Your task to perform on an android device: Search for nike dri-fit shirts on Nike Image 0: 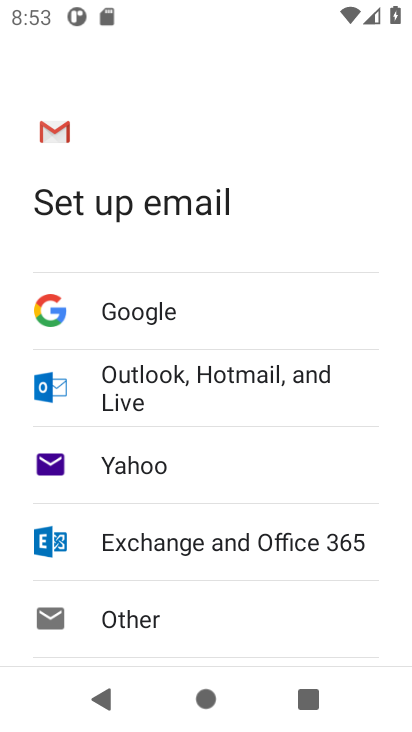
Step 0: press home button
Your task to perform on an android device: Search for nike dri-fit shirts on Nike Image 1: 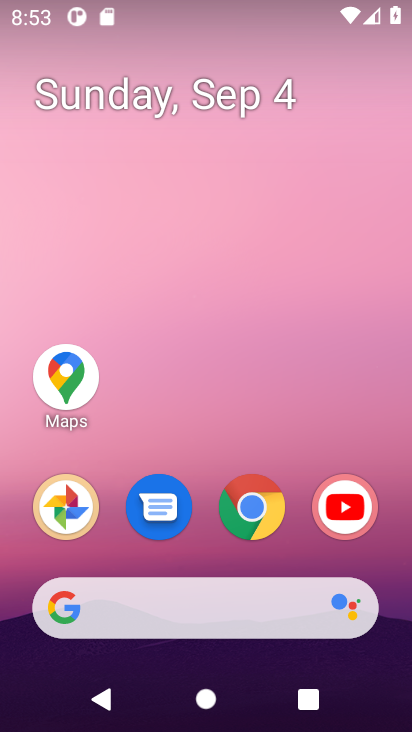
Step 1: click (252, 513)
Your task to perform on an android device: Search for nike dri-fit shirts on Nike Image 2: 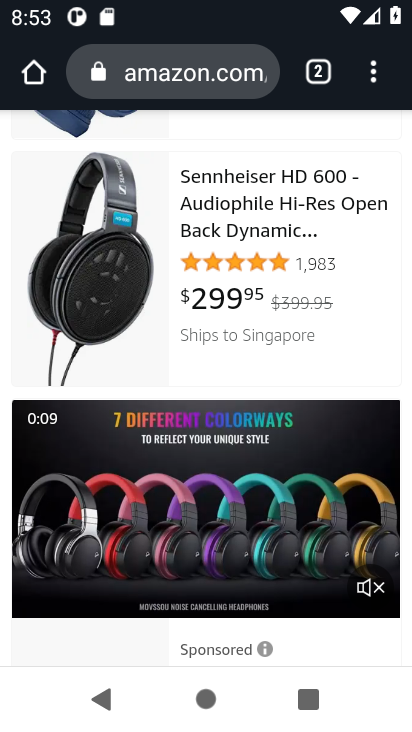
Step 2: click (145, 56)
Your task to perform on an android device: Search for nike dri-fit shirts on Nike Image 3: 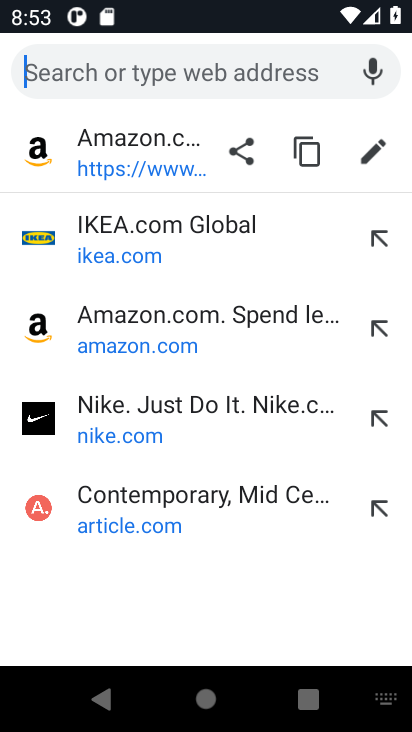
Step 3: type "Nike"
Your task to perform on an android device: Search for nike dri-fit shirts on Nike Image 4: 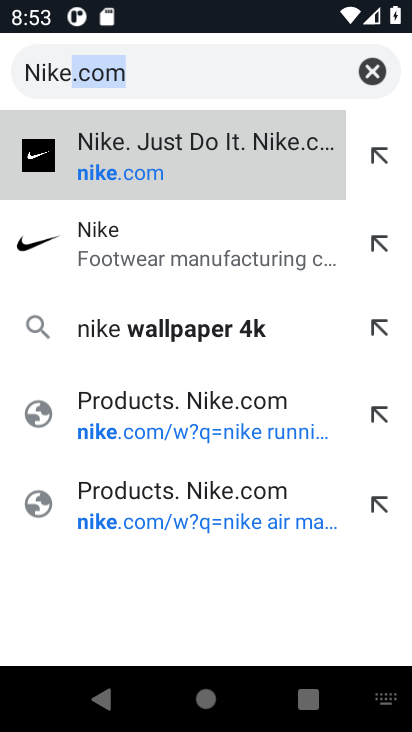
Step 4: click (97, 151)
Your task to perform on an android device: Search for nike dri-fit shirts on Nike Image 5: 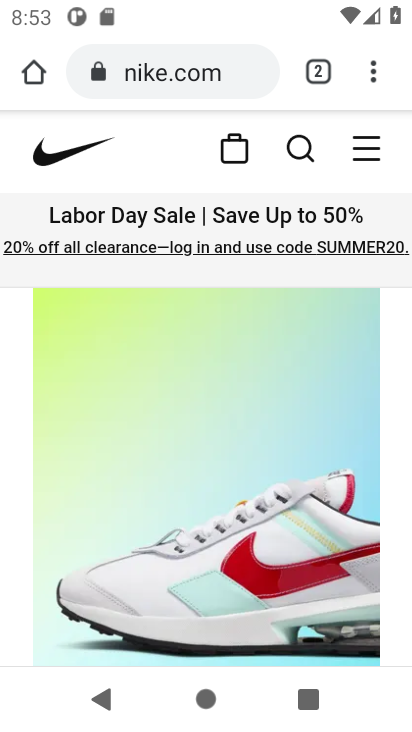
Step 5: click (292, 150)
Your task to perform on an android device: Search for nike dri-fit shirts on Nike Image 6: 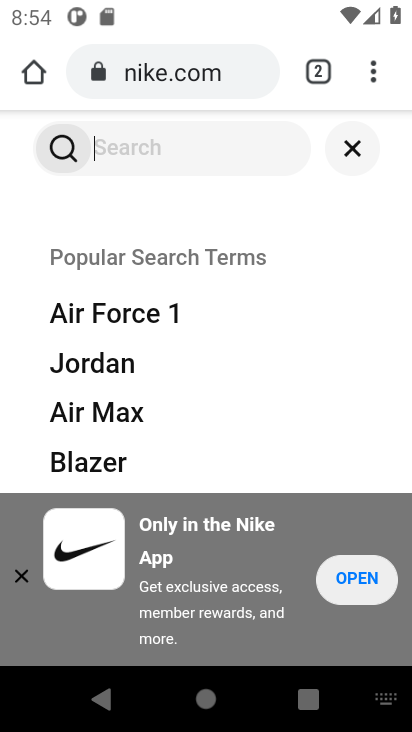
Step 6: click (19, 571)
Your task to perform on an android device: Search for nike dri-fit shirts on Nike Image 7: 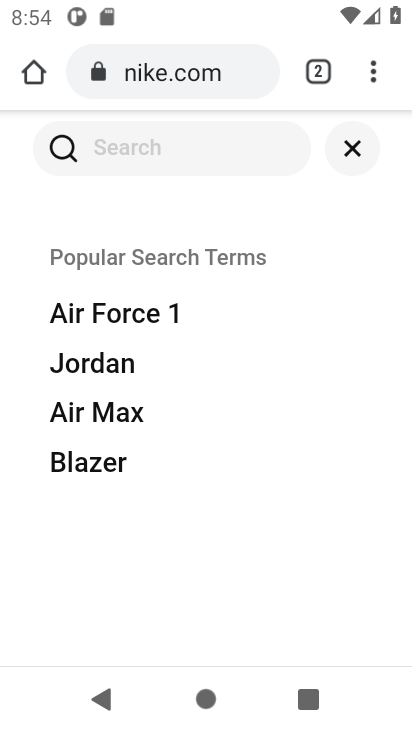
Step 7: click (63, 149)
Your task to perform on an android device: Search for nike dri-fit shirts on Nike Image 8: 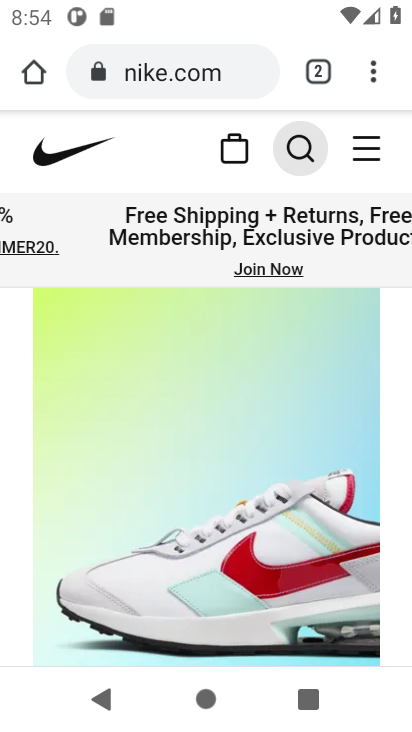
Step 8: click (300, 150)
Your task to perform on an android device: Search for nike dri-fit shirts on Nike Image 9: 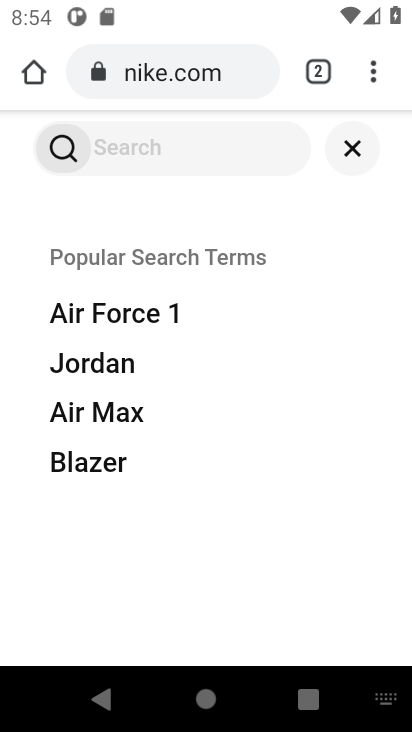
Step 9: type " nike dri-fit shirts"
Your task to perform on an android device: Search for nike dri-fit shirts on Nike Image 10: 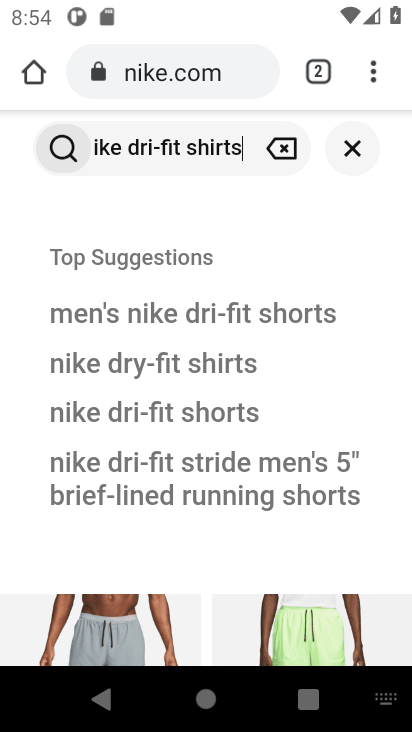
Step 10: click (111, 354)
Your task to perform on an android device: Search for nike dri-fit shirts on Nike Image 11: 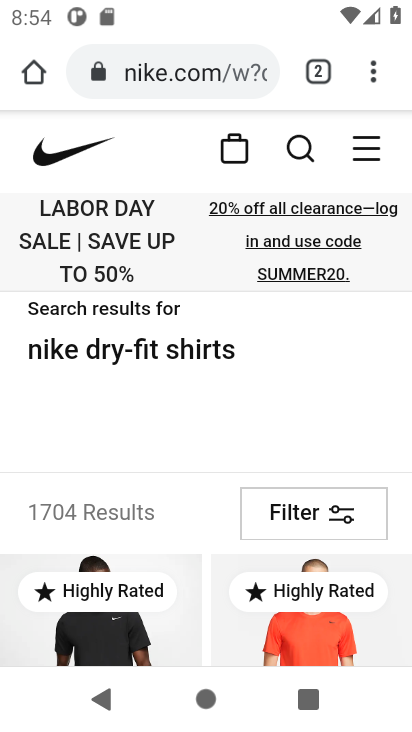
Step 11: drag from (206, 553) to (199, 173)
Your task to perform on an android device: Search for nike dri-fit shirts on Nike Image 12: 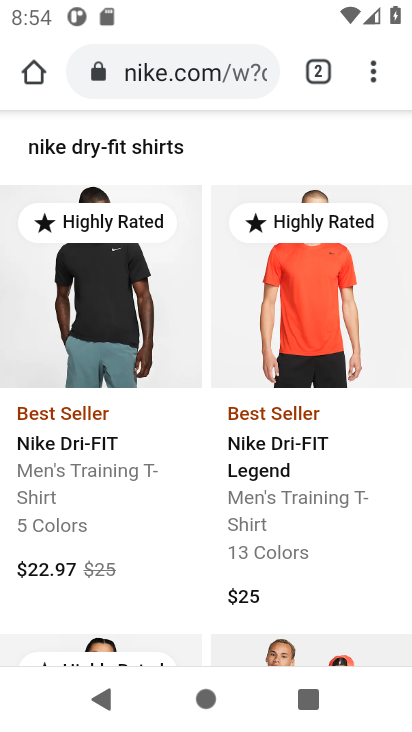
Step 12: drag from (202, 539) to (202, 264)
Your task to perform on an android device: Search for nike dri-fit shirts on Nike Image 13: 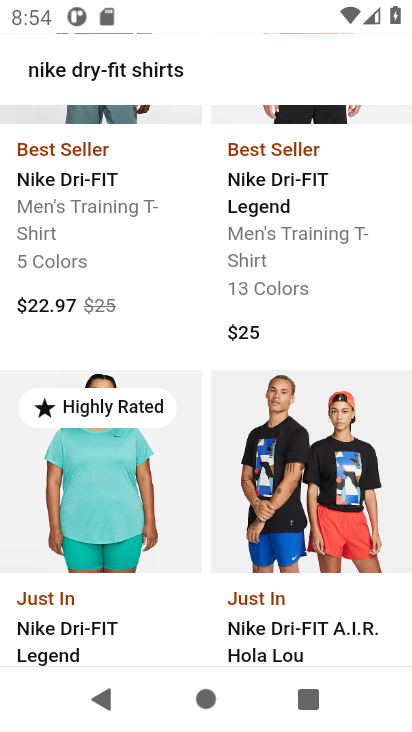
Step 13: drag from (205, 577) to (188, 244)
Your task to perform on an android device: Search for nike dri-fit shirts on Nike Image 14: 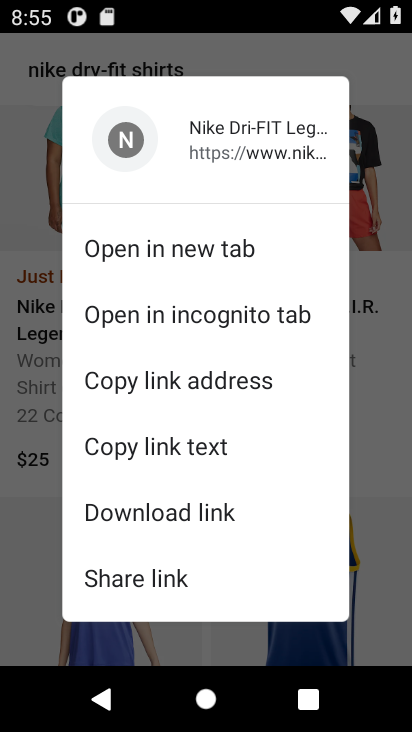
Step 14: click (374, 480)
Your task to perform on an android device: Search for nike dri-fit shirts on Nike Image 15: 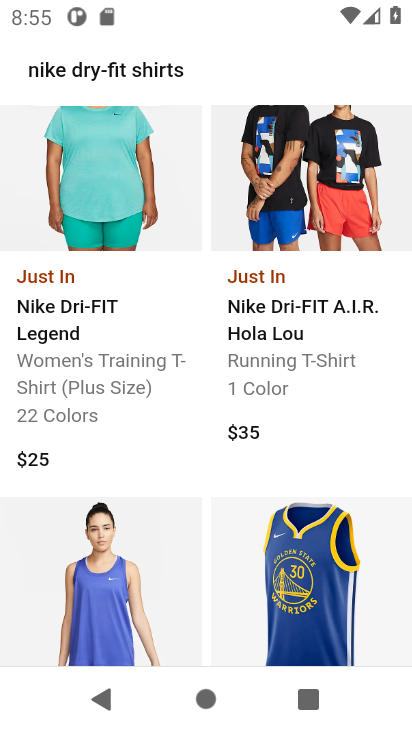
Step 15: task complete